Your task to perform on an android device: see sites visited before in the chrome app Image 0: 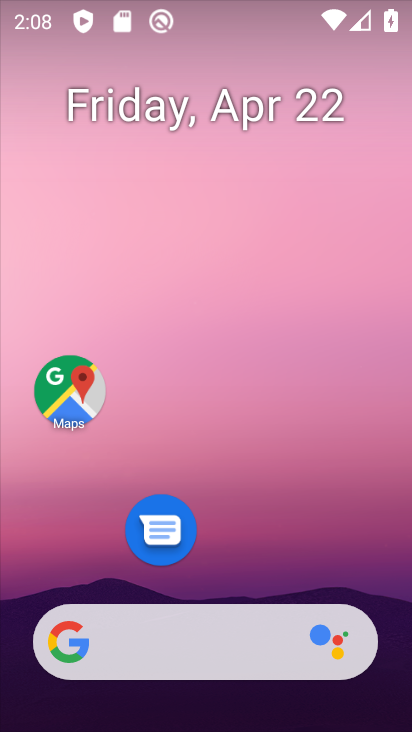
Step 0: drag from (231, 525) to (126, 4)
Your task to perform on an android device: see sites visited before in the chrome app Image 1: 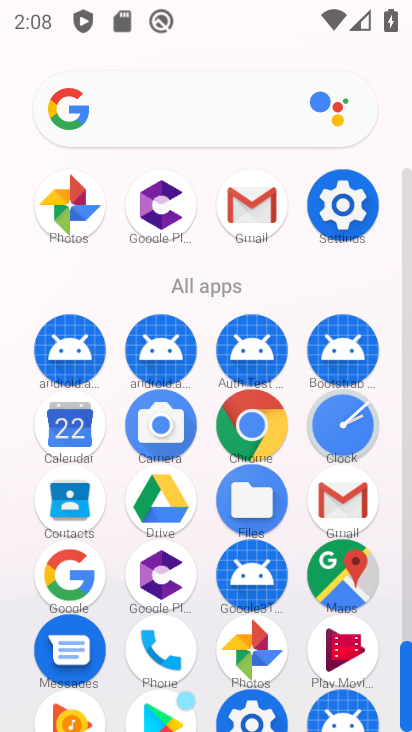
Step 1: click (256, 431)
Your task to perform on an android device: see sites visited before in the chrome app Image 2: 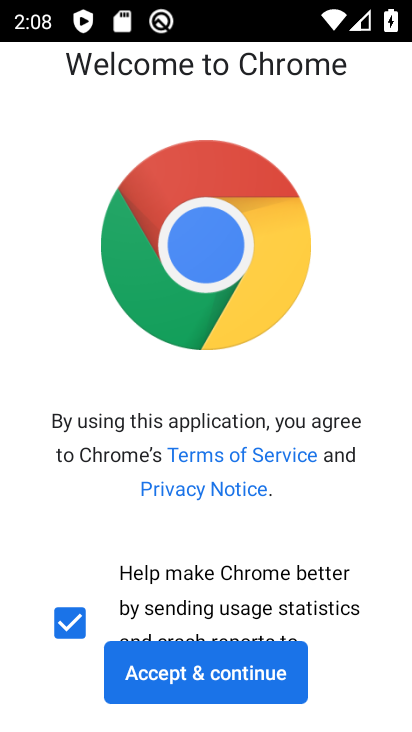
Step 2: click (217, 671)
Your task to perform on an android device: see sites visited before in the chrome app Image 3: 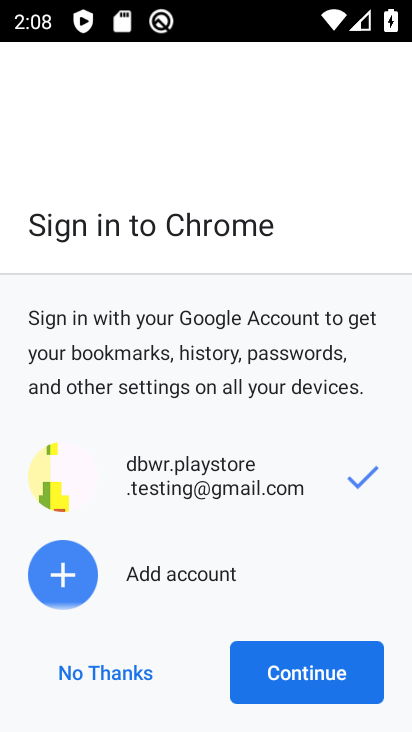
Step 3: click (297, 678)
Your task to perform on an android device: see sites visited before in the chrome app Image 4: 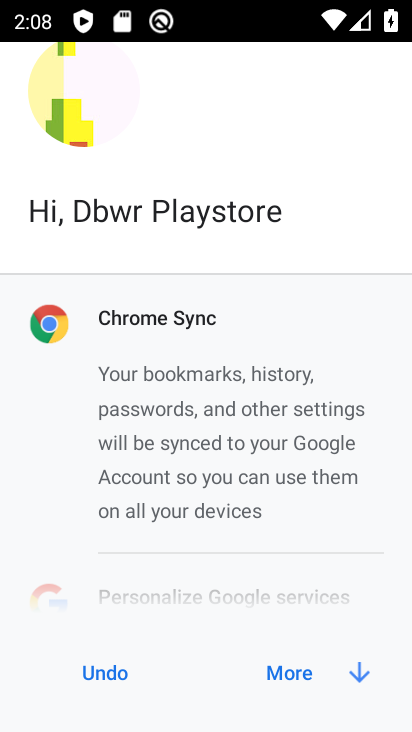
Step 4: click (330, 676)
Your task to perform on an android device: see sites visited before in the chrome app Image 5: 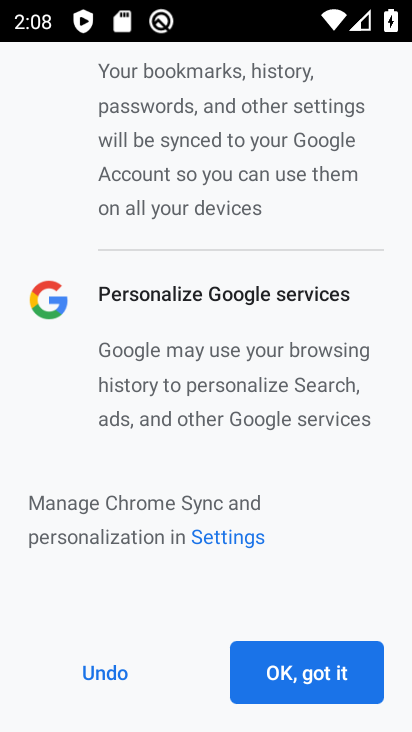
Step 5: click (292, 675)
Your task to perform on an android device: see sites visited before in the chrome app Image 6: 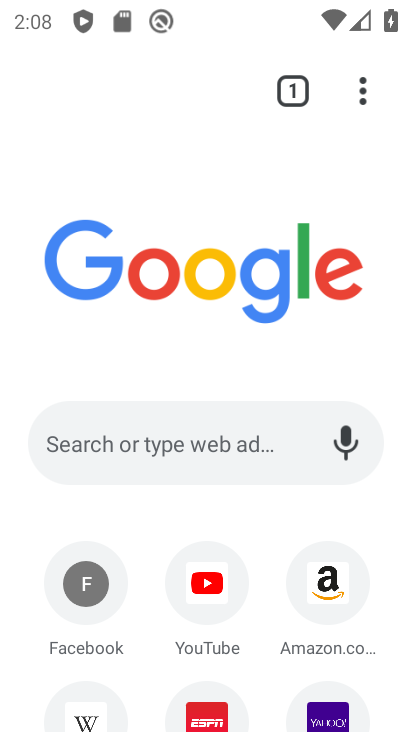
Step 6: click (363, 95)
Your task to perform on an android device: see sites visited before in the chrome app Image 7: 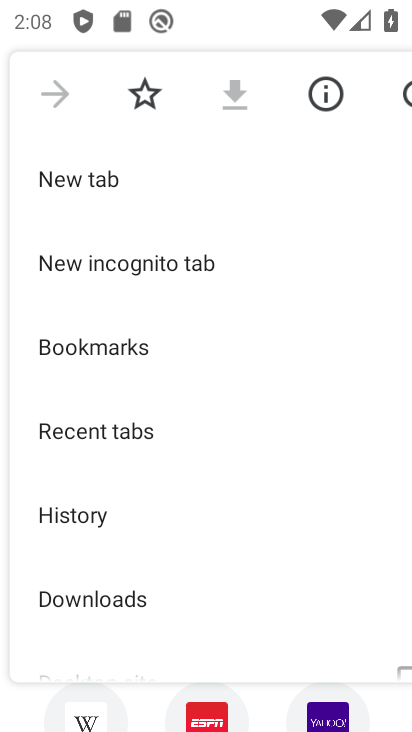
Step 7: click (66, 510)
Your task to perform on an android device: see sites visited before in the chrome app Image 8: 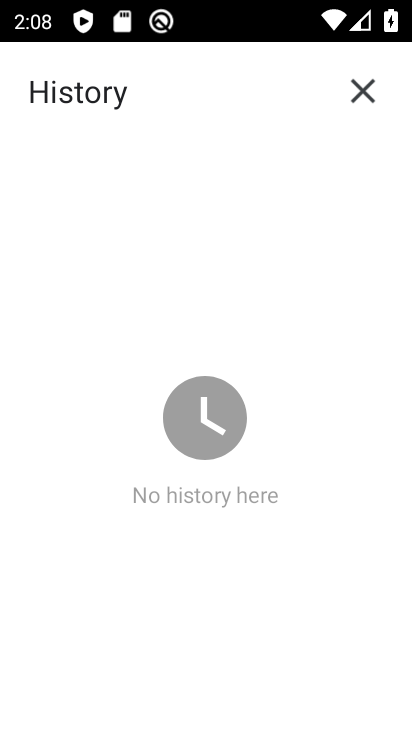
Step 8: task complete